Your task to perform on an android device: Clear the cart on amazon. Search for "asus rog" on amazon, select the first entry, add it to the cart, then select checkout. Image 0: 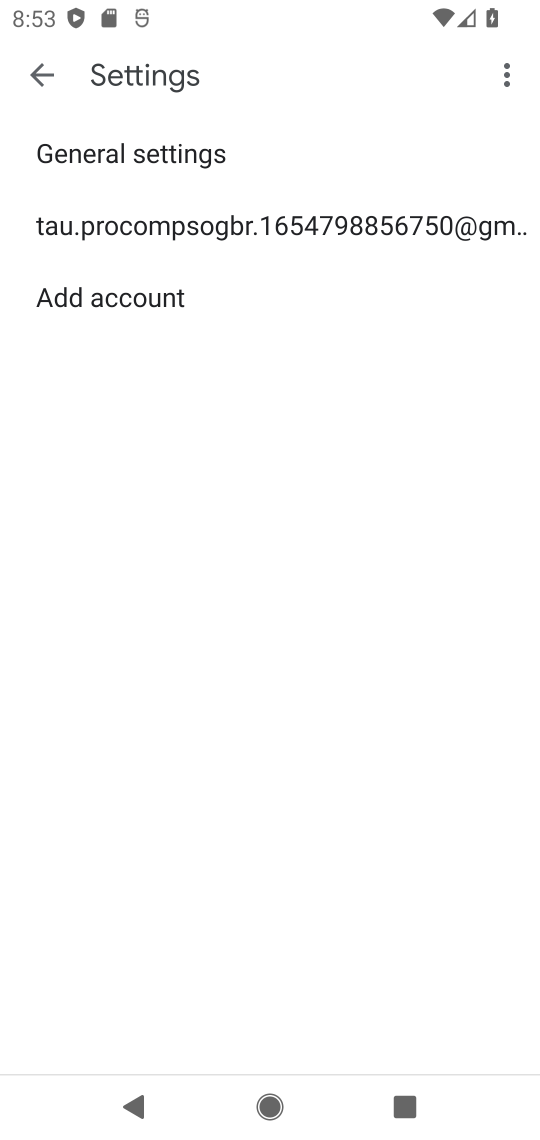
Step 0: press home button
Your task to perform on an android device: Clear the cart on amazon. Search for "asus rog" on amazon, select the first entry, add it to the cart, then select checkout. Image 1: 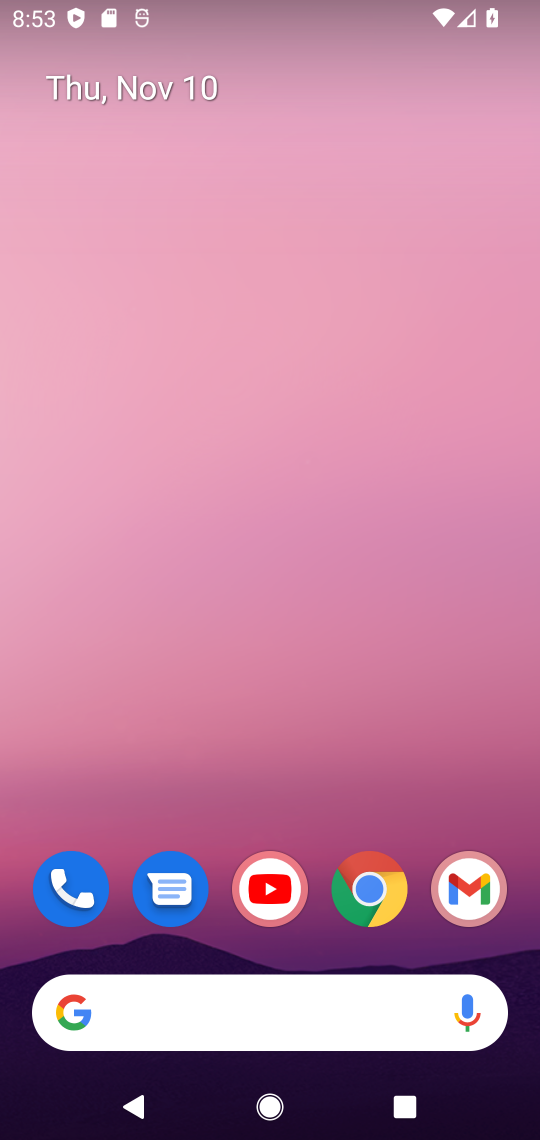
Step 1: click (527, 843)
Your task to perform on an android device: Clear the cart on amazon. Search for "asus rog" on amazon, select the first entry, add it to the cart, then select checkout. Image 2: 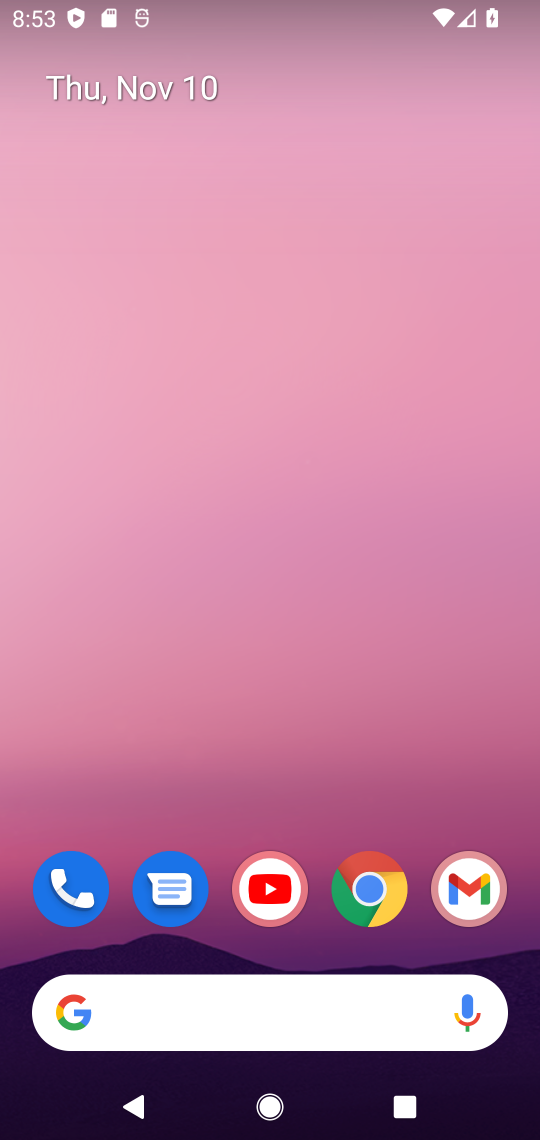
Step 2: click (371, 896)
Your task to perform on an android device: Clear the cart on amazon. Search for "asus rog" on amazon, select the first entry, add it to the cart, then select checkout. Image 3: 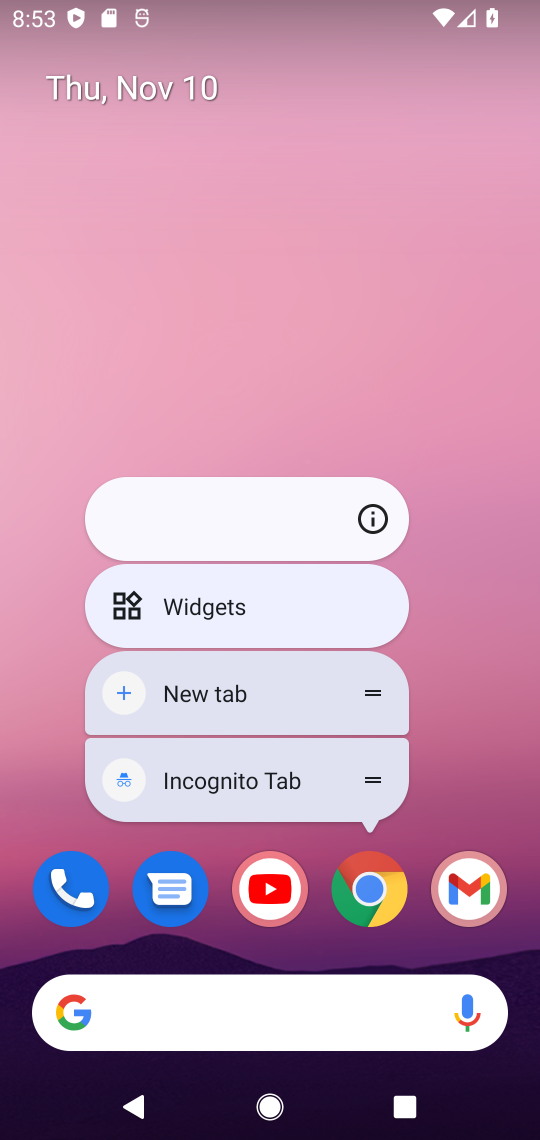
Step 3: click (372, 896)
Your task to perform on an android device: Clear the cart on amazon. Search for "asus rog" on amazon, select the first entry, add it to the cart, then select checkout. Image 4: 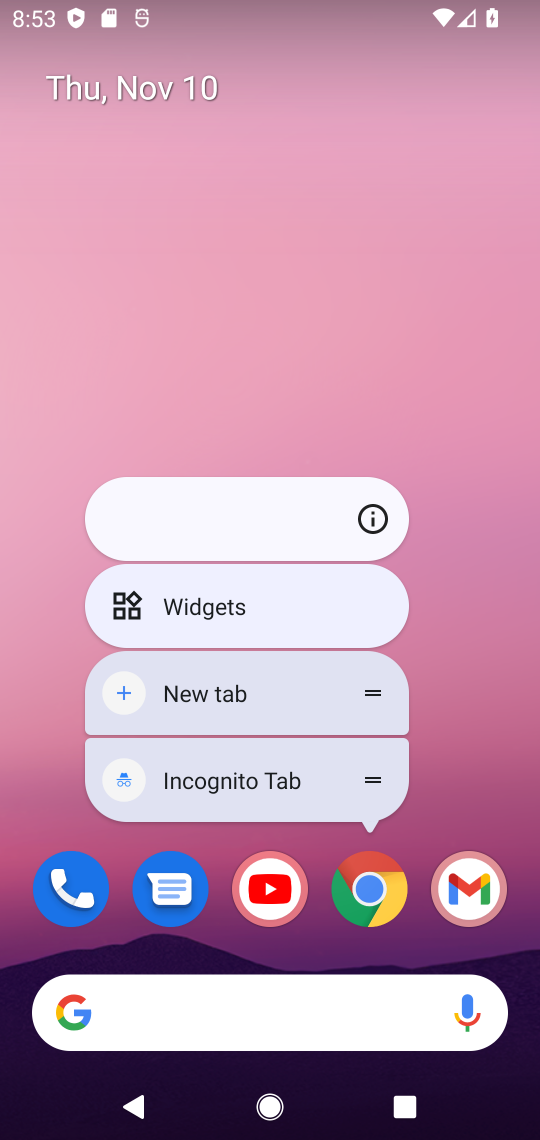
Step 4: click (372, 896)
Your task to perform on an android device: Clear the cart on amazon. Search for "asus rog" on amazon, select the first entry, add it to the cart, then select checkout. Image 5: 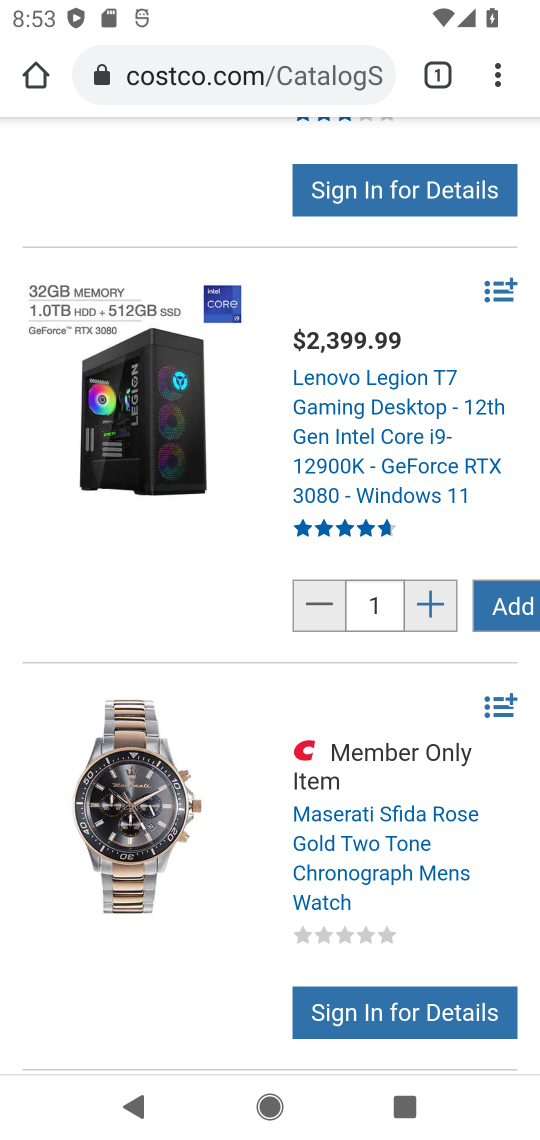
Step 5: click (292, 76)
Your task to perform on an android device: Clear the cart on amazon. Search for "asus rog" on amazon, select the first entry, add it to the cart, then select checkout. Image 6: 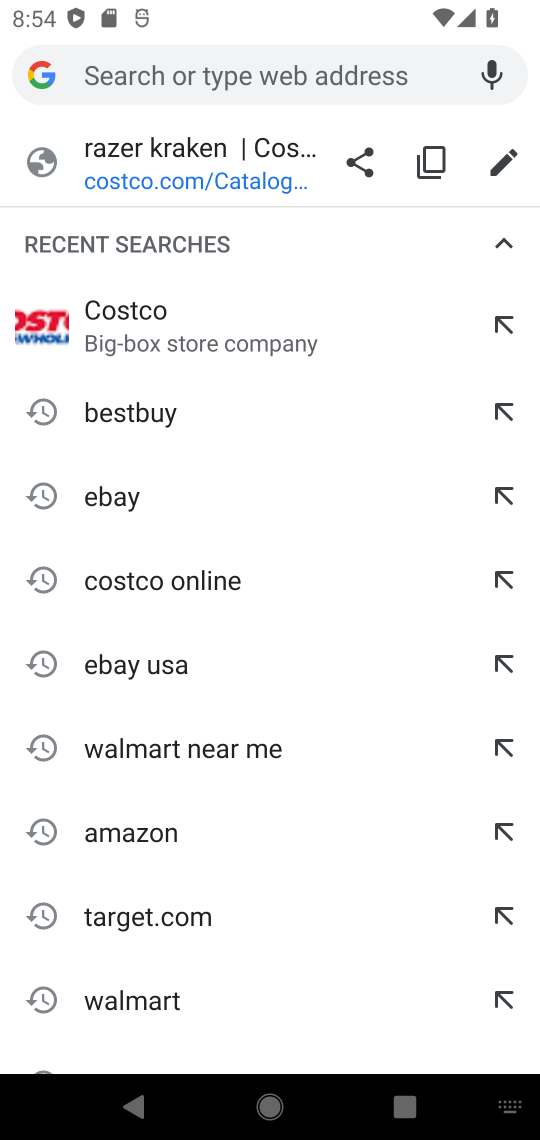
Step 6: click (134, 834)
Your task to perform on an android device: Clear the cart on amazon. Search for "asus rog" on amazon, select the first entry, add it to the cart, then select checkout. Image 7: 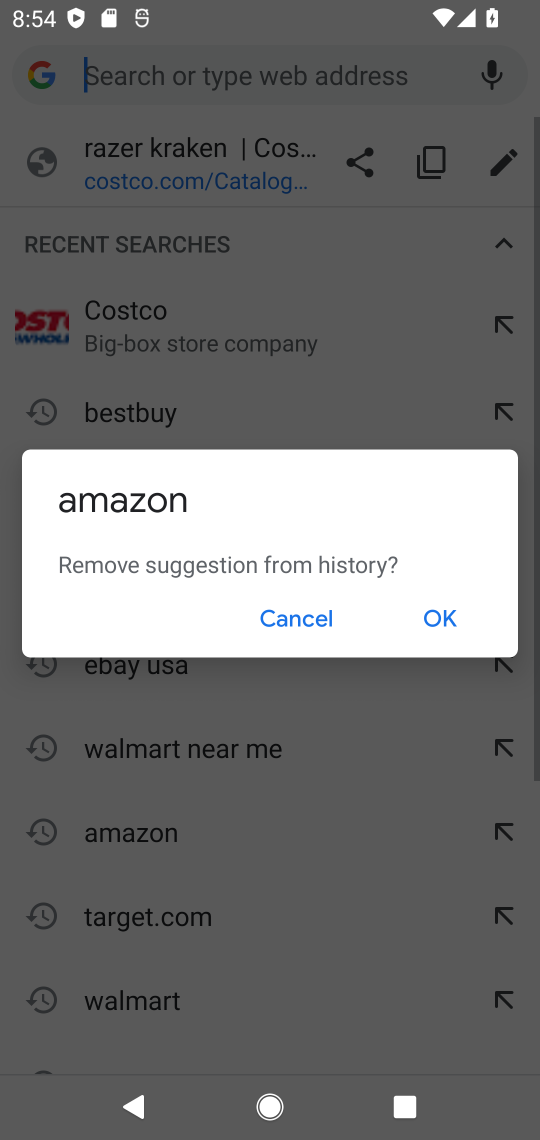
Step 7: click (116, 827)
Your task to perform on an android device: Clear the cart on amazon. Search for "asus rog" on amazon, select the first entry, add it to the cart, then select checkout. Image 8: 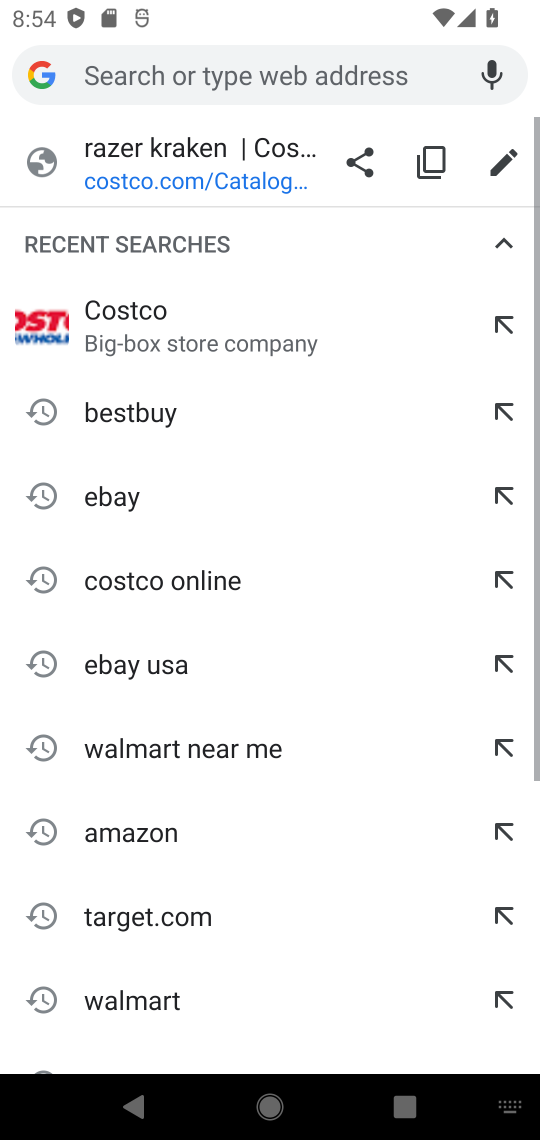
Step 8: click (109, 833)
Your task to perform on an android device: Clear the cart on amazon. Search for "asus rog" on amazon, select the first entry, add it to the cart, then select checkout. Image 9: 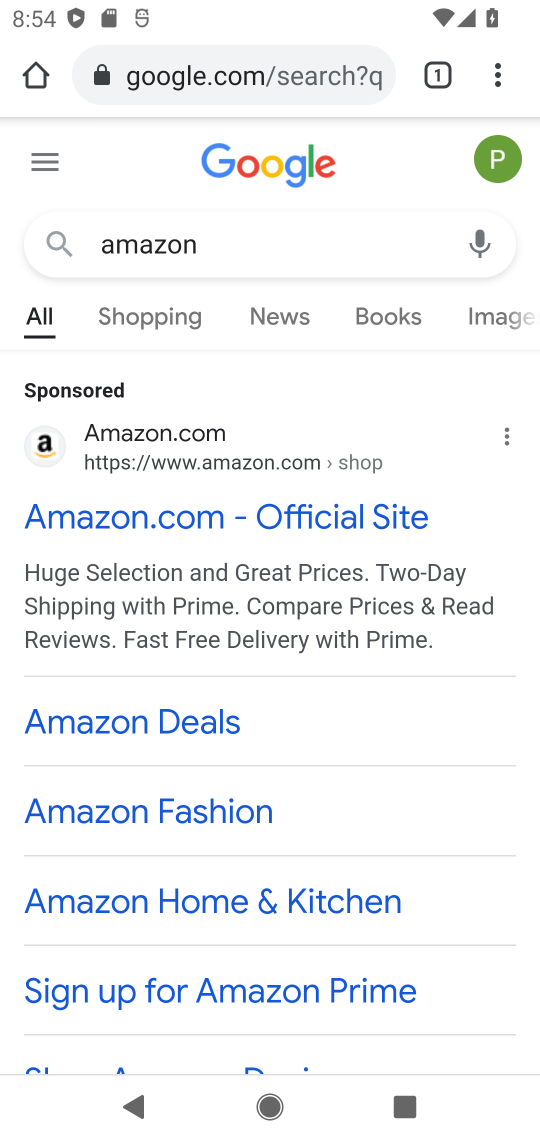
Step 9: click (176, 520)
Your task to perform on an android device: Clear the cart on amazon. Search for "asus rog" on amazon, select the first entry, add it to the cart, then select checkout. Image 10: 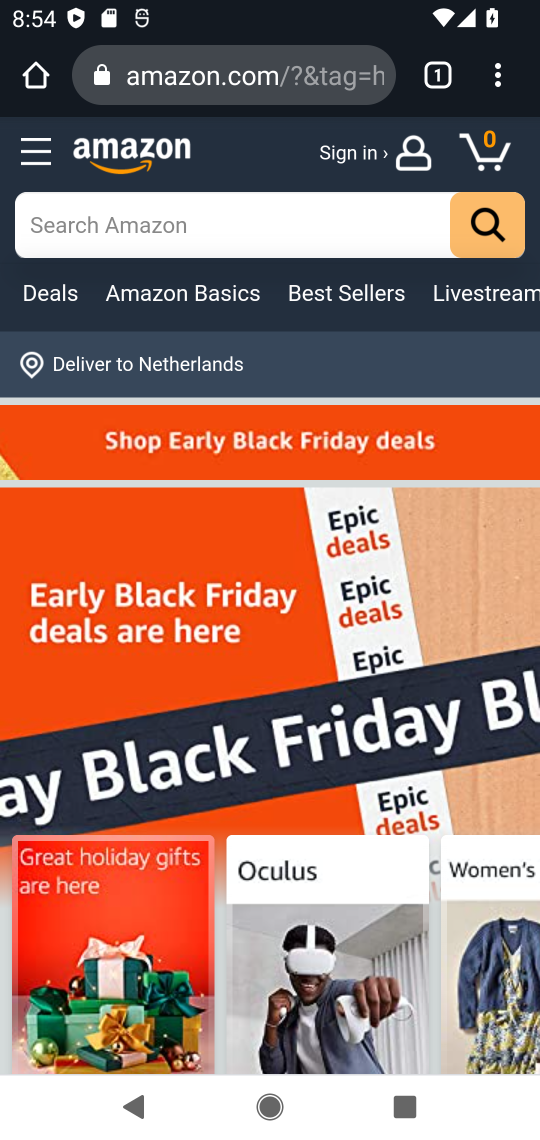
Step 10: click (44, 212)
Your task to perform on an android device: Clear the cart on amazon. Search for "asus rog" on amazon, select the first entry, add it to the cart, then select checkout. Image 11: 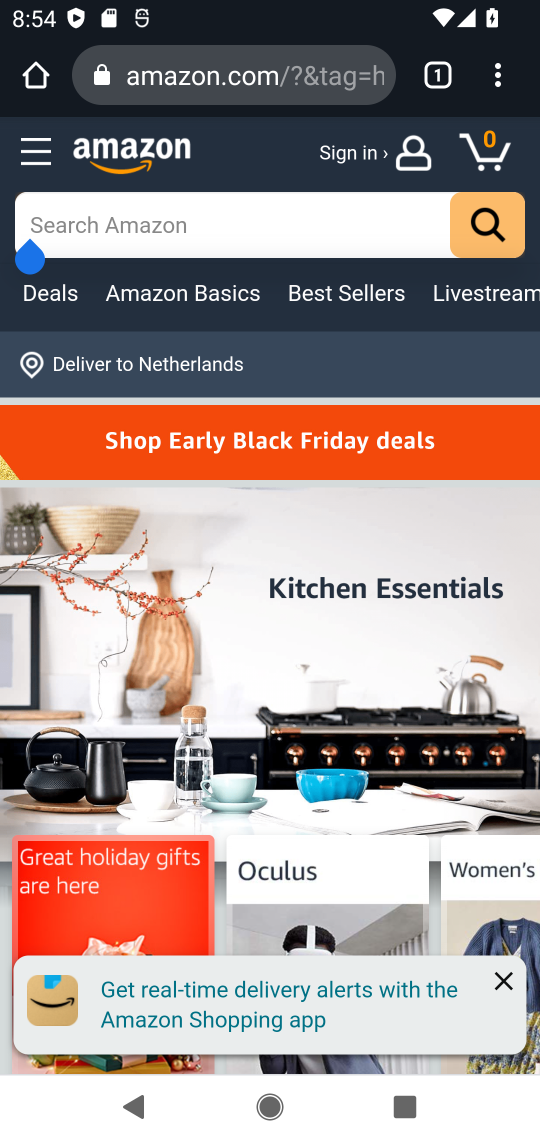
Step 11: press enter
Your task to perform on an android device: Clear the cart on amazon. Search for "asus rog" on amazon, select the first entry, add it to the cart, then select checkout. Image 12: 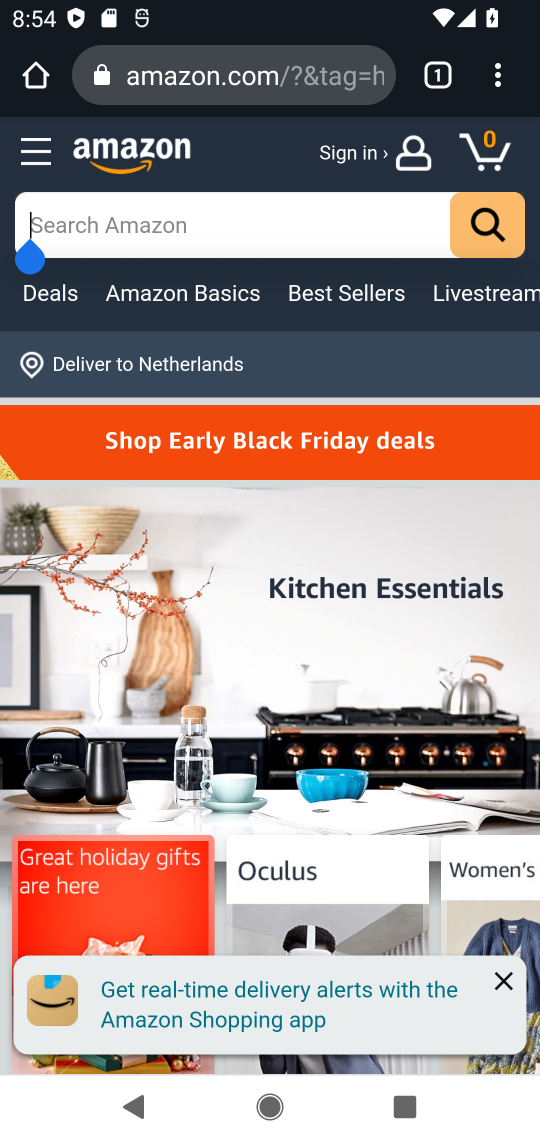
Step 12: type "asus rog"
Your task to perform on an android device: Clear the cart on amazon. Search for "asus rog" on amazon, select the first entry, add it to the cart, then select checkout. Image 13: 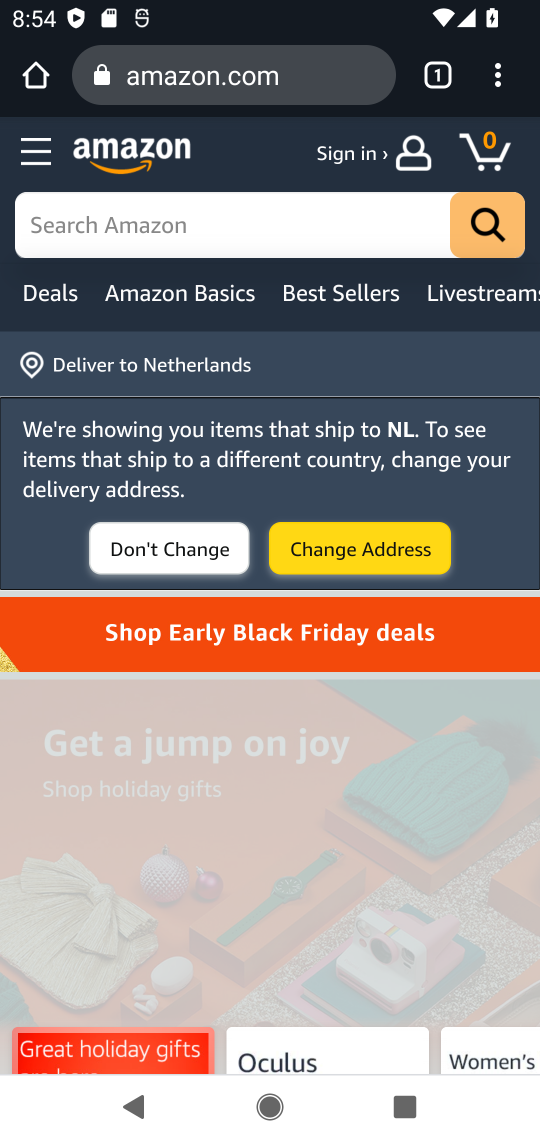
Step 13: click (113, 215)
Your task to perform on an android device: Clear the cart on amazon. Search for "asus rog" on amazon, select the first entry, add it to the cart, then select checkout. Image 14: 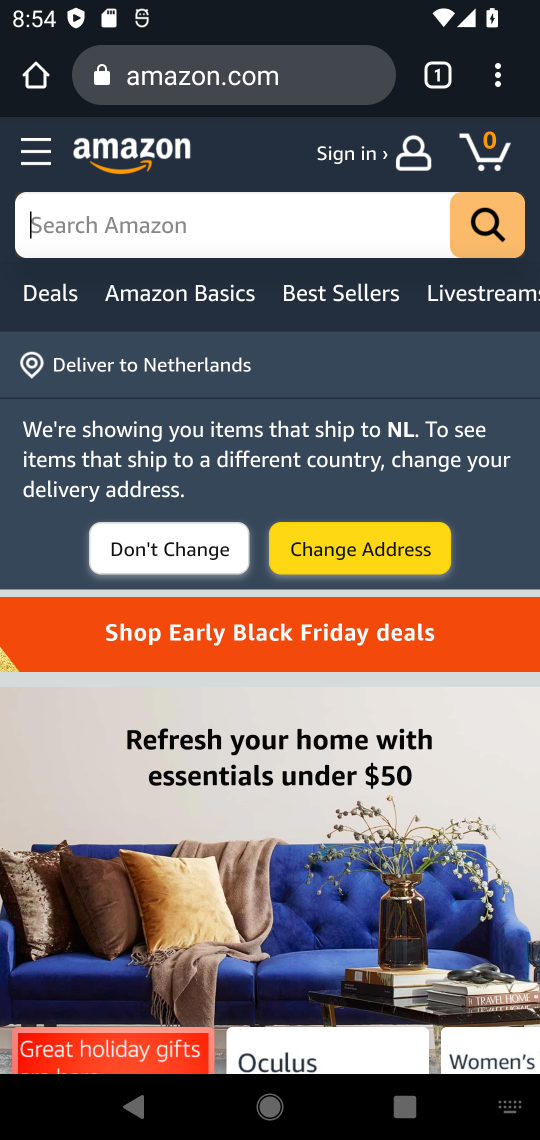
Step 14: type "asus rog"
Your task to perform on an android device: Clear the cart on amazon. Search for "asus rog" on amazon, select the first entry, add it to the cart, then select checkout. Image 15: 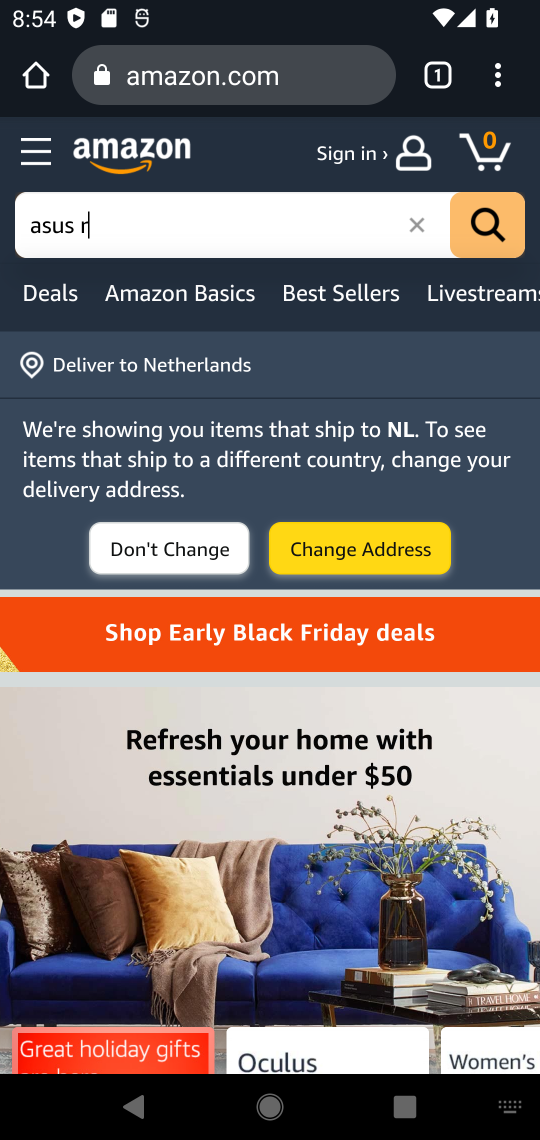
Step 15: press enter
Your task to perform on an android device: Clear the cart on amazon. Search for "asus rog" on amazon, select the first entry, add it to the cart, then select checkout. Image 16: 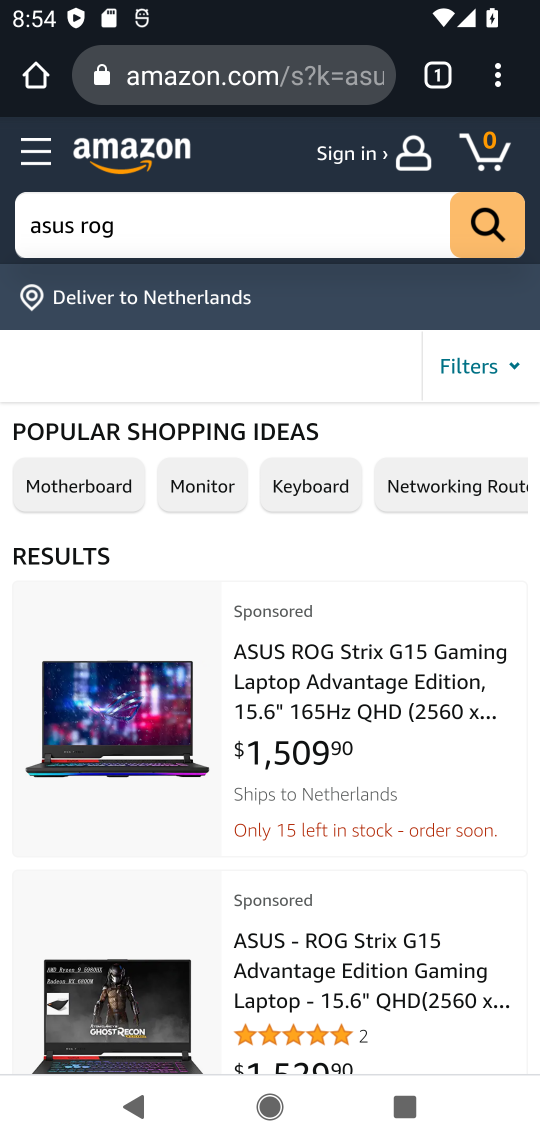
Step 16: click (325, 660)
Your task to perform on an android device: Clear the cart on amazon. Search for "asus rog" on amazon, select the first entry, add it to the cart, then select checkout. Image 17: 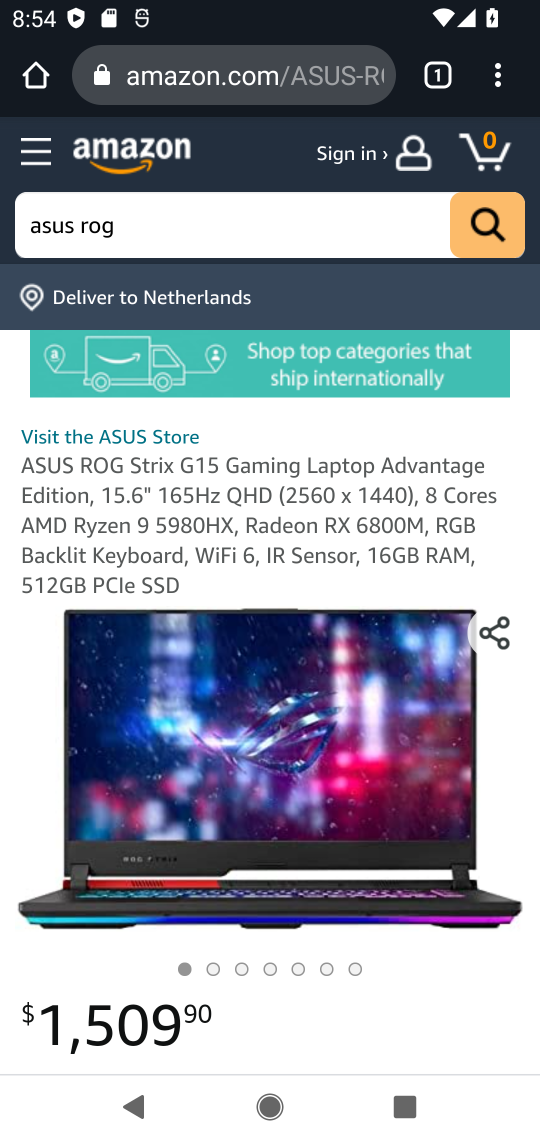
Step 17: drag from (333, 1022) to (381, 334)
Your task to perform on an android device: Clear the cart on amazon. Search for "asus rog" on amazon, select the first entry, add it to the cart, then select checkout. Image 18: 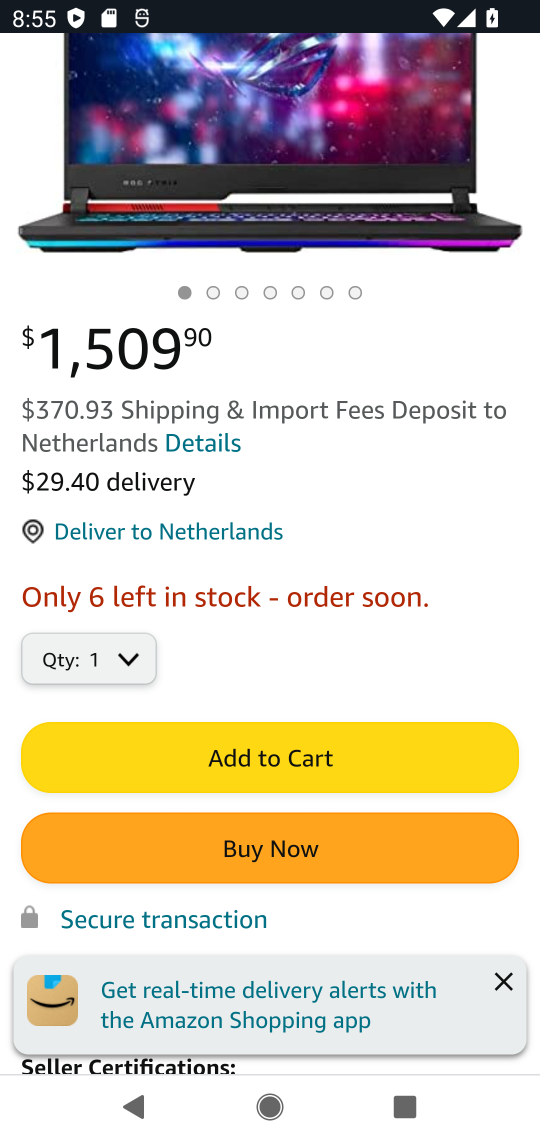
Step 18: click (247, 753)
Your task to perform on an android device: Clear the cart on amazon. Search for "asus rog" on amazon, select the first entry, add it to the cart, then select checkout. Image 19: 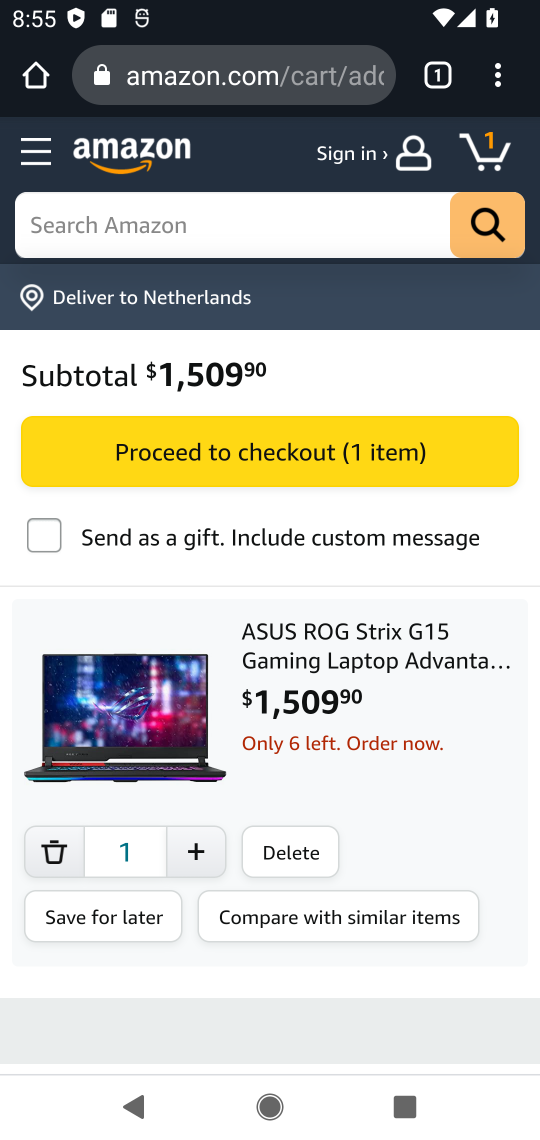
Step 19: click (297, 448)
Your task to perform on an android device: Clear the cart on amazon. Search for "asus rog" on amazon, select the first entry, add it to the cart, then select checkout. Image 20: 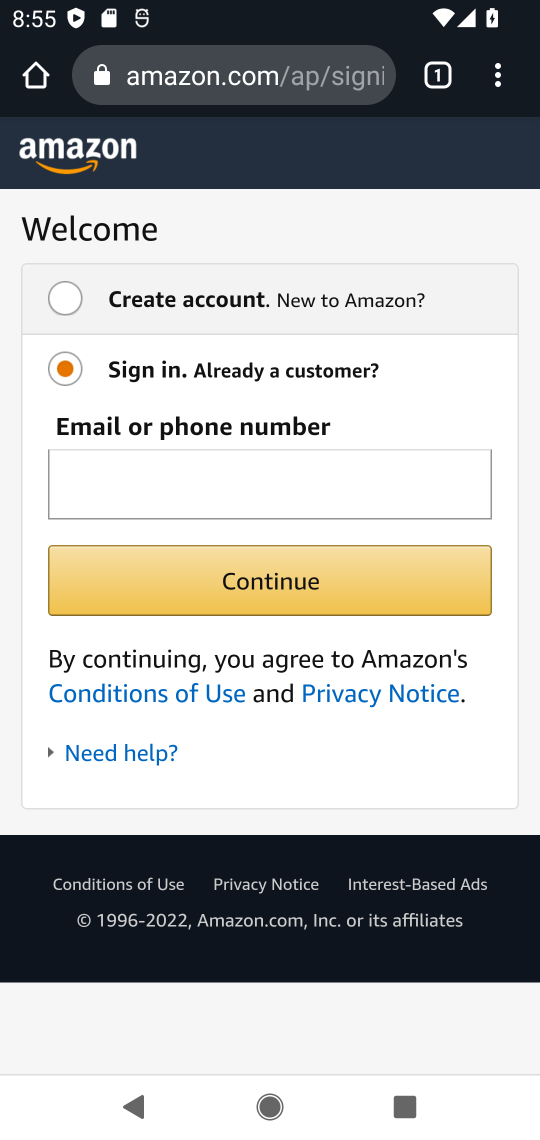
Step 20: task complete